Your task to perform on an android device: change your default location settings in chrome Image 0: 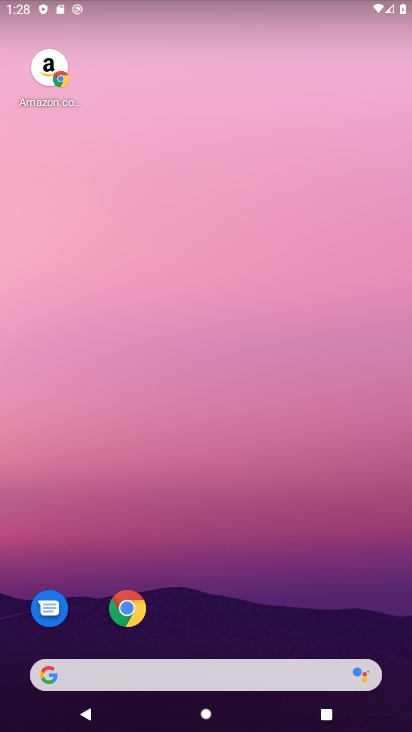
Step 0: click (199, 342)
Your task to perform on an android device: change your default location settings in chrome Image 1: 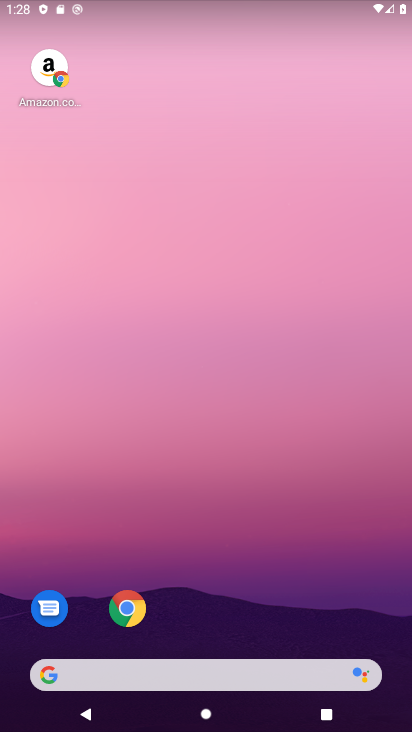
Step 1: drag from (282, 696) to (300, 185)
Your task to perform on an android device: change your default location settings in chrome Image 2: 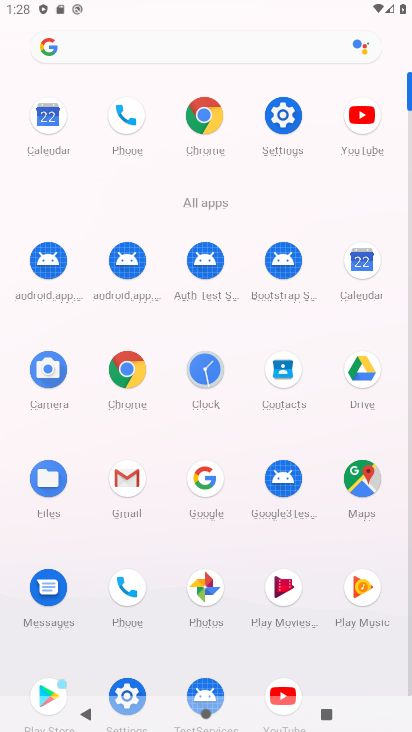
Step 2: click (203, 127)
Your task to perform on an android device: change your default location settings in chrome Image 3: 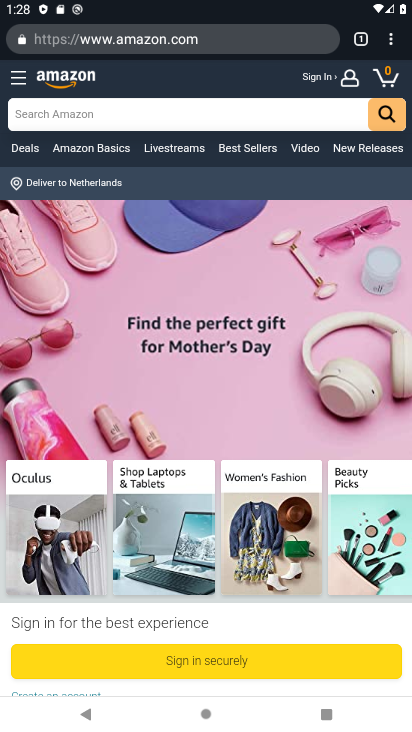
Step 3: click (388, 53)
Your task to perform on an android device: change your default location settings in chrome Image 4: 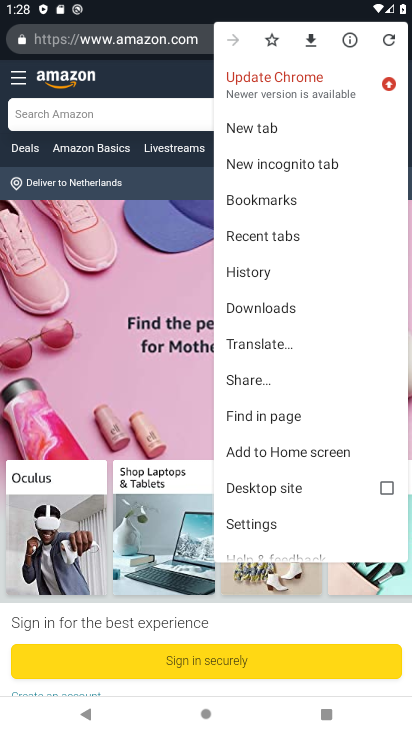
Step 4: click (242, 519)
Your task to perform on an android device: change your default location settings in chrome Image 5: 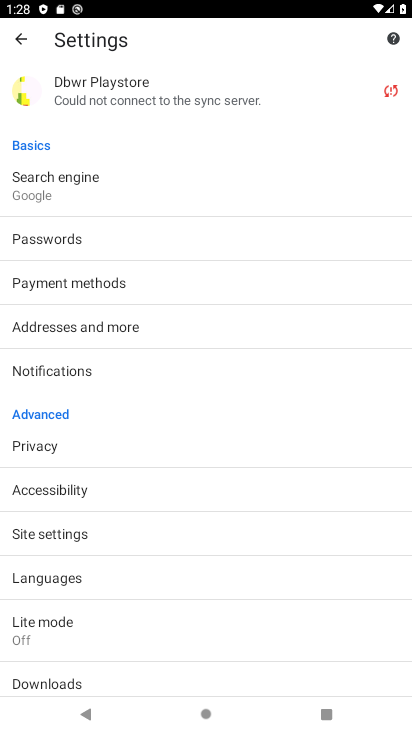
Step 5: click (69, 542)
Your task to perform on an android device: change your default location settings in chrome Image 6: 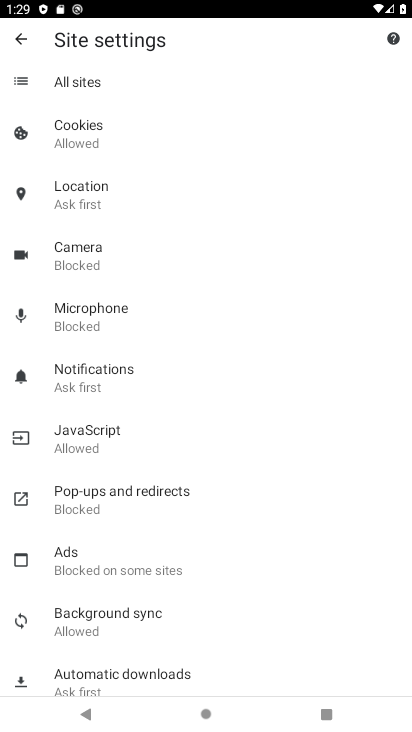
Step 6: click (73, 202)
Your task to perform on an android device: change your default location settings in chrome Image 7: 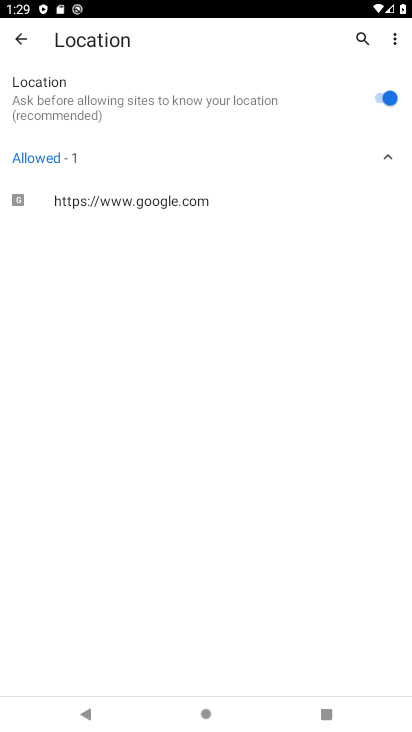
Step 7: click (349, 84)
Your task to perform on an android device: change your default location settings in chrome Image 8: 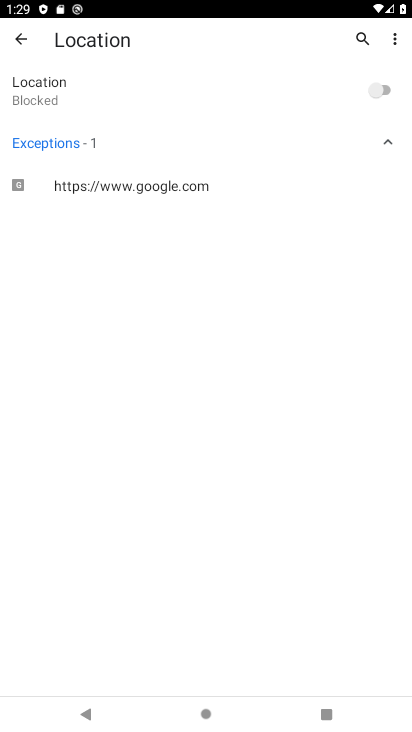
Step 8: click (351, 80)
Your task to perform on an android device: change your default location settings in chrome Image 9: 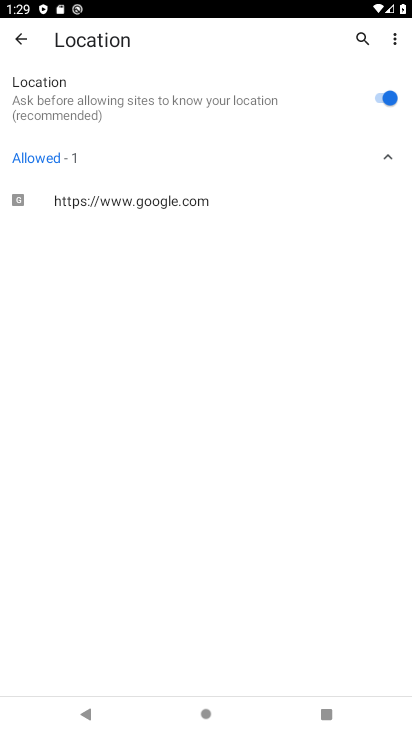
Step 9: task complete